Your task to perform on an android device: clear history in the chrome app Image 0: 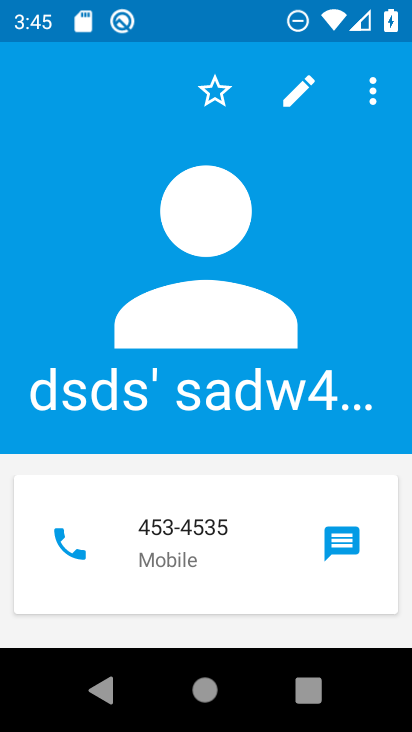
Step 0: press home button
Your task to perform on an android device: clear history in the chrome app Image 1: 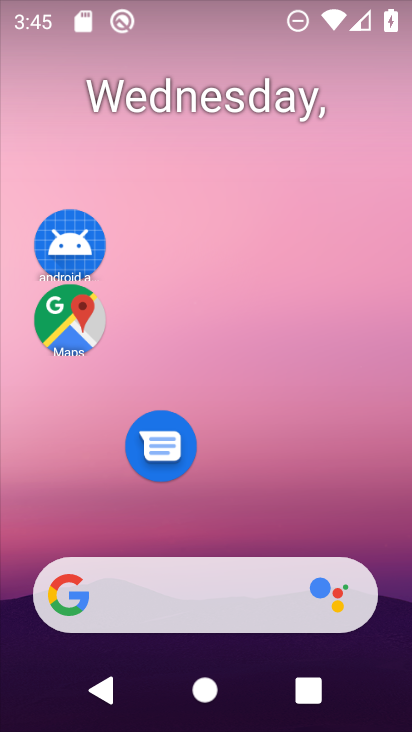
Step 1: drag from (337, 483) to (236, 84)
Your task to perform on an android device: clear history in the chrome app Image 2: 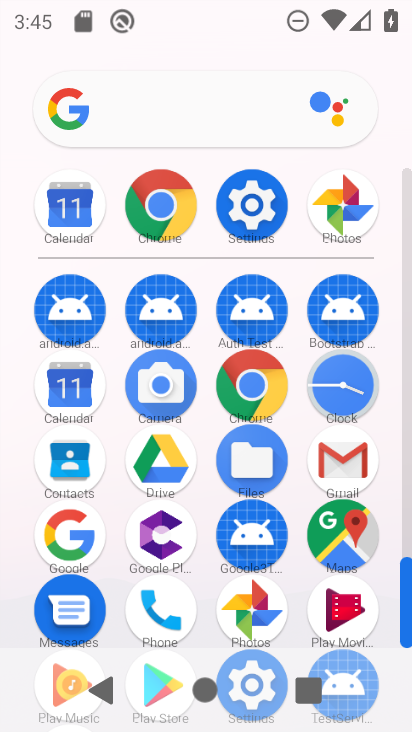
Step 2: click (149, 189)
Your task to perform on an android device: clear history in the chrome app Image 3: 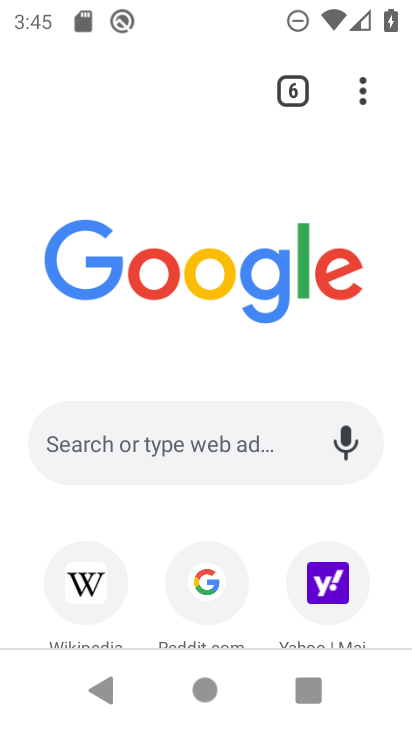
Step 3: click (368, 110)
Your task to perform on an android device: clear history in the chrome app Image 4: 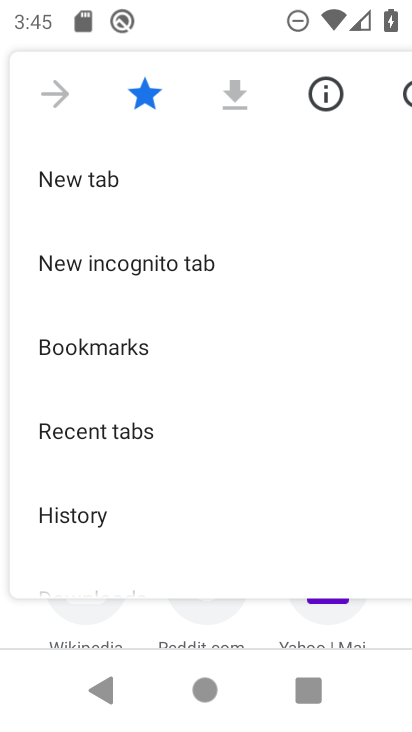
Step 4: drag from (230, 449) to (239, 242)
Your task to perform on an android device: clear history in the chrome app Image 5: 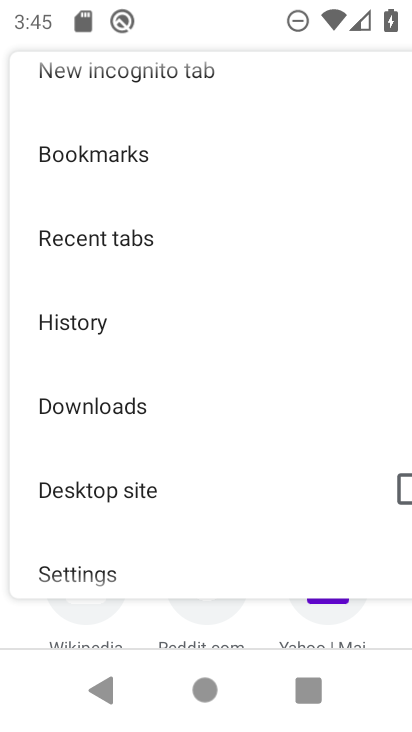
Step 5: drag from (210, 482) to (234, 268)
Your task to perform on an android device: clear history in the chrome app Image 6: 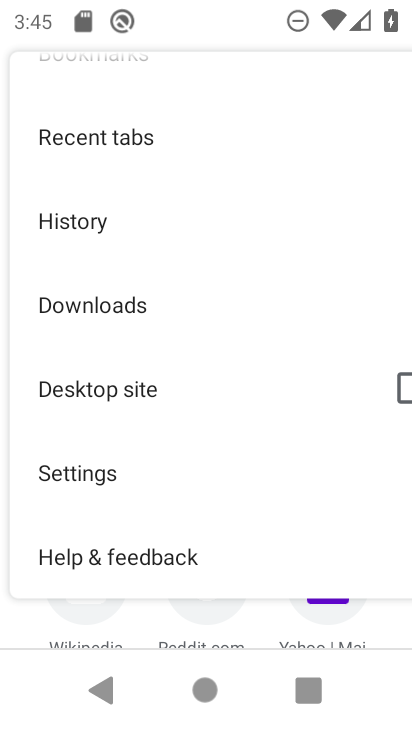
Step 6: click (188, 220)
Your task to perform on an android device: clear history in the chrome app Image 7: 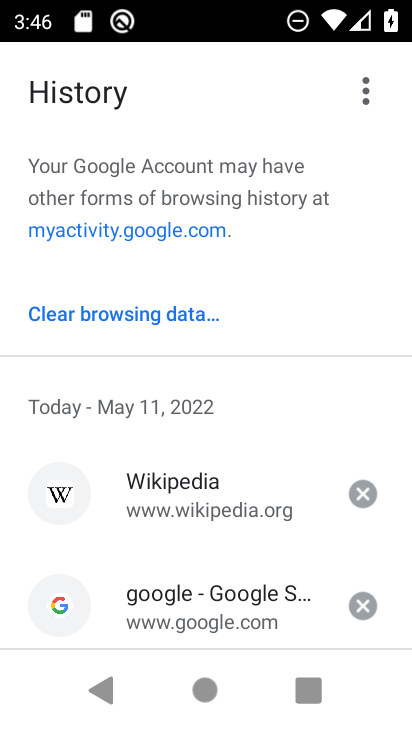
Step 7: click (193, 314)
Your task to perform on an android device: clear history in the chrome app Image 8: 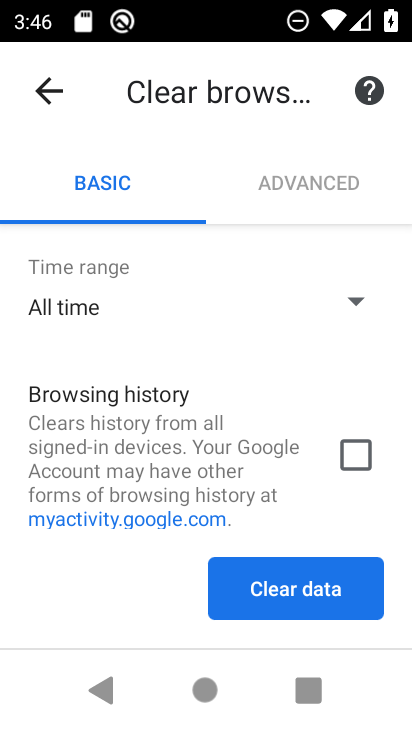
Step 8: click (335, 463)
Your task to perform on an android device: clear history in the chrome app Image 9: 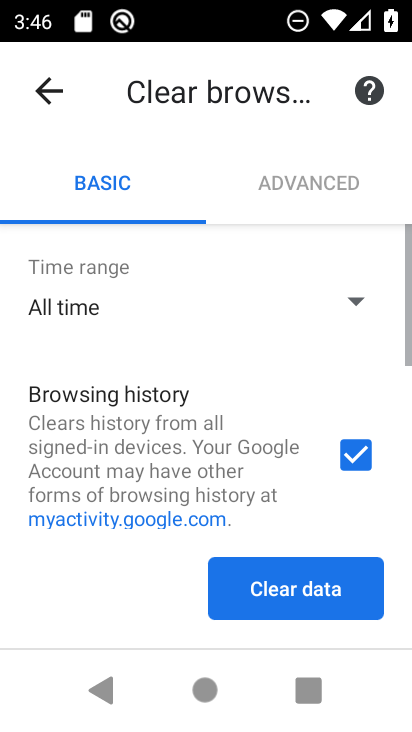
Step 9: click (331, 573)
Your task to perform on an android device: clear history in the chrome app Image 10: 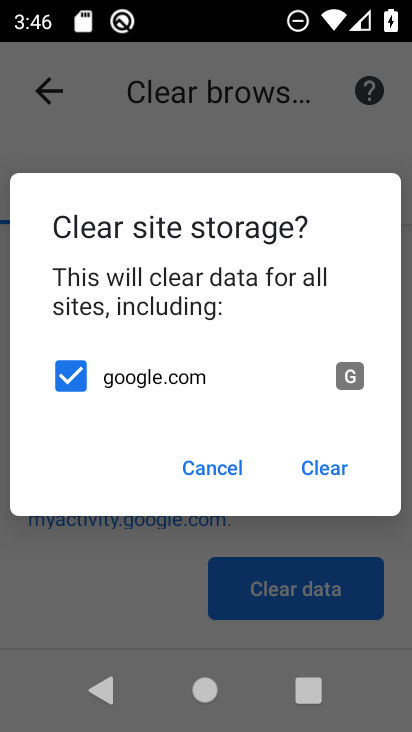
Step 10: click (301, 481)
Your task to perform on an android device: clear history in the chrome app Image 11: 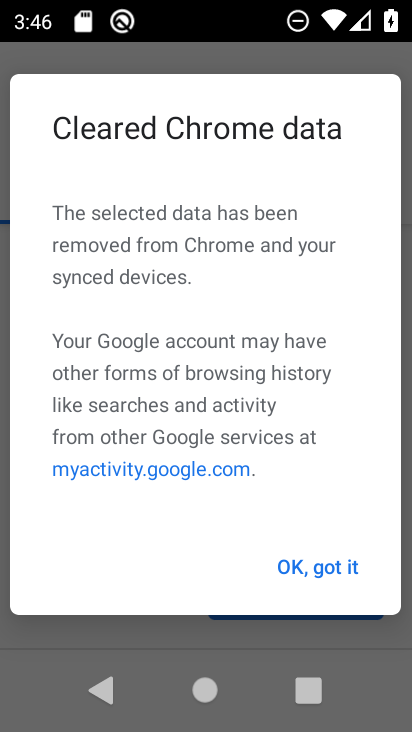
Step 11: task complete